Your task to perform on an android device: change the clock display to show seconds Image 0: 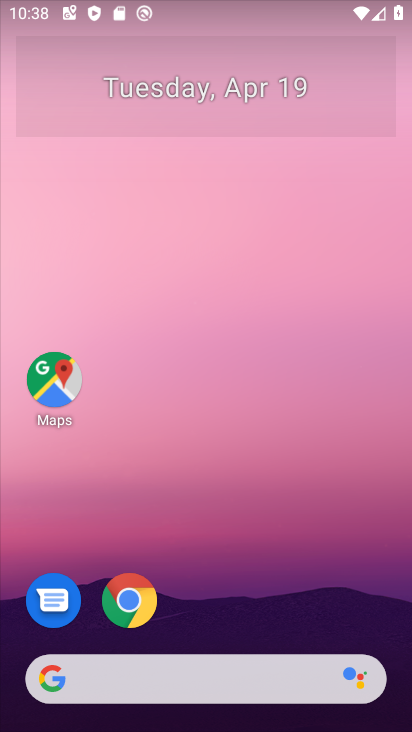
Step 0: drag from (256, 226) to (314, 13)
Your task to perform on an android device: change the clock display to show seconds Image 1: 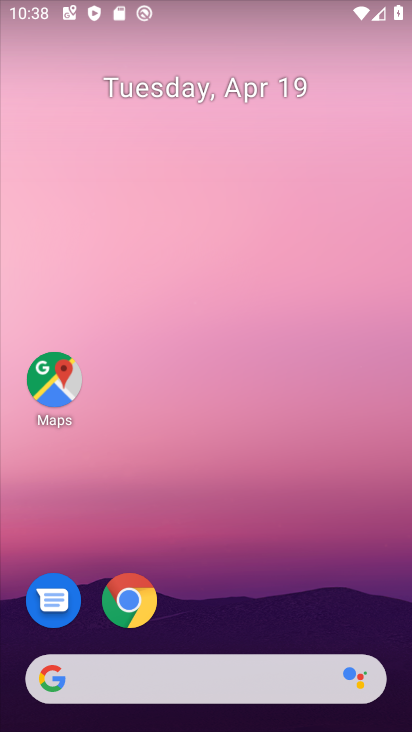
Step 1: drag from (212, 598) to (411, 1)
Your task to perform on an android device: change the clock display to show seconds Image 2: 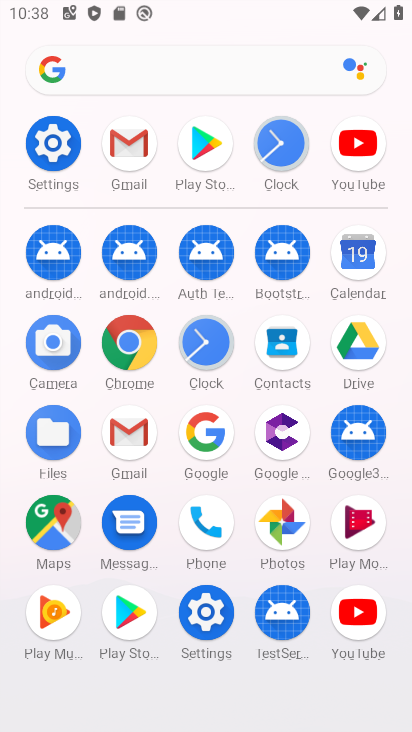
Step 2: click (207, 350)
Your task to perform on an android device: change the clock display to show seconds Image 3: 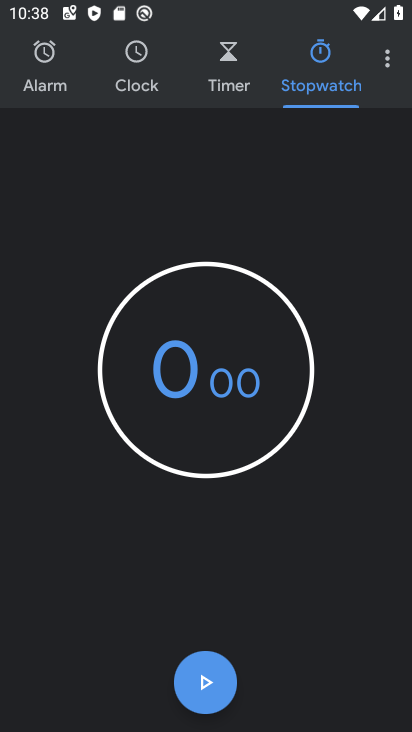
Step 3: click (380, 64)
Your task to perform on an android device: change the clock display to show seconds Image 4: 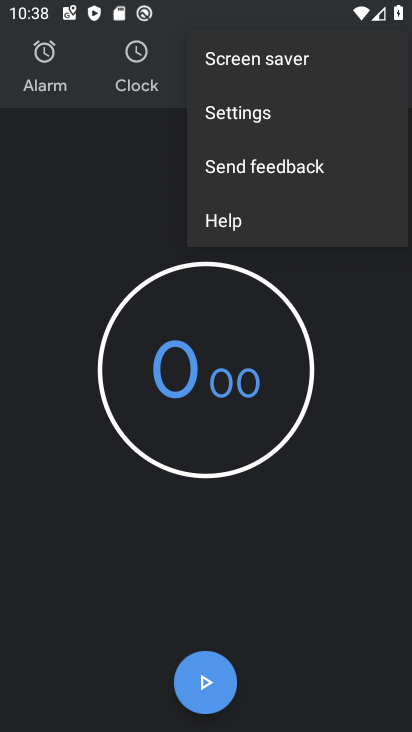
Step 4: click (249, 111)
Your task to perform on an android device: change the clock display to show seconds Image 5: 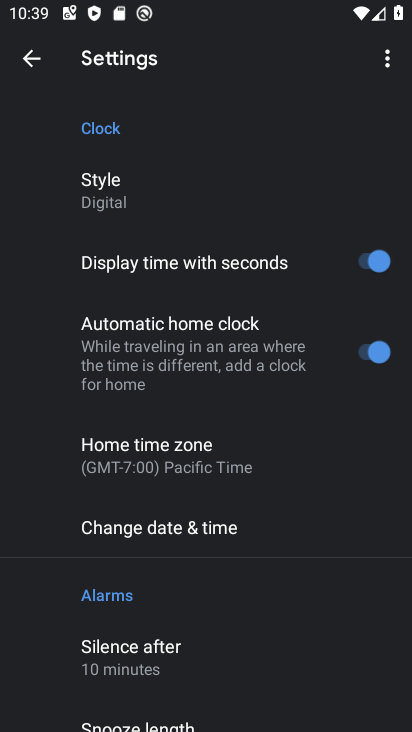
Step 5: click (130, 193)
Your task to perform on an android device: change the clock display to show seconds Image 6: 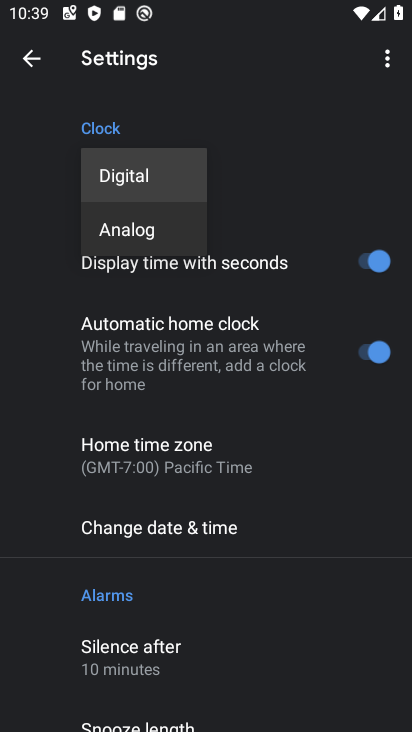
Step 6: click (167, 222)
Your task to perform on an android device: change the clock display to show seconds Image 7: 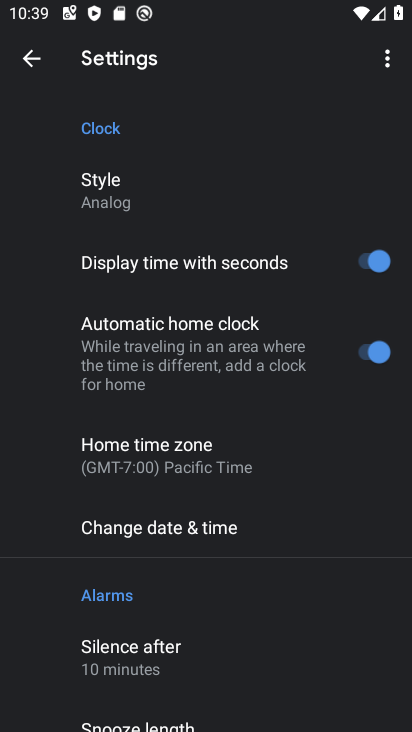
Step 7: task complete